Your task to perform on an android device: open wifi settings Image 0: 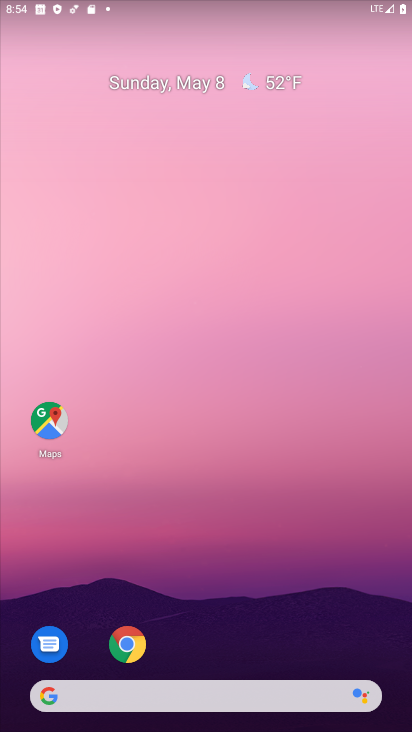
Step 0: drag from (212, 638) to (251, 239)
Your task to perform on an android device: open wifi settings Image 1: 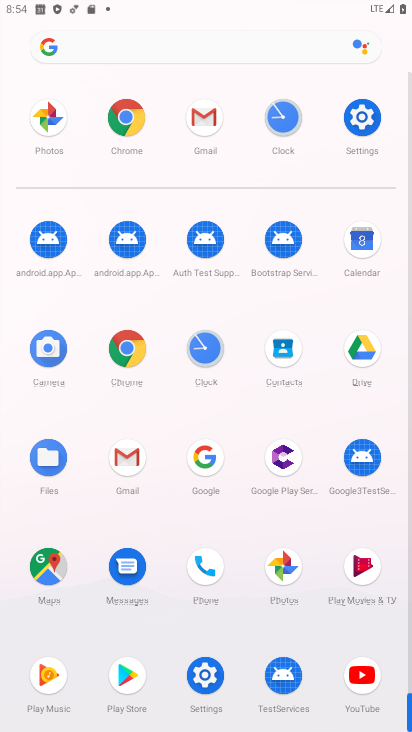
Step 1: click (202, 673)
Your task to perform on an android device: open wifi settings Image 2: 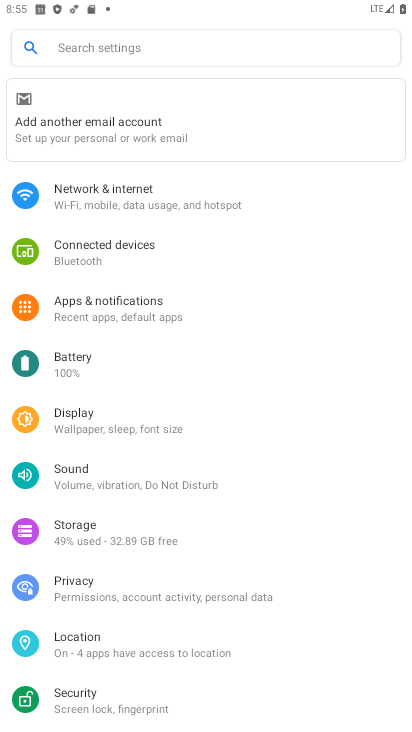
Step 2: click (145, 203)
Your task to perform on an android device: open wifi settings Image 3: 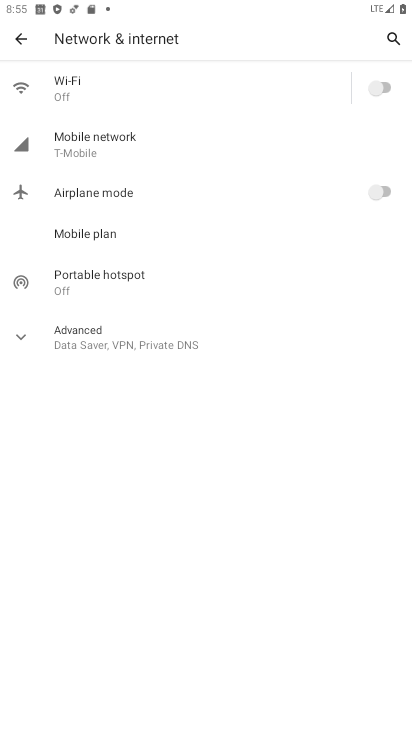
Step 3: click (209, 99)
Your task to perform on an android device: open wifi settings Image 4: 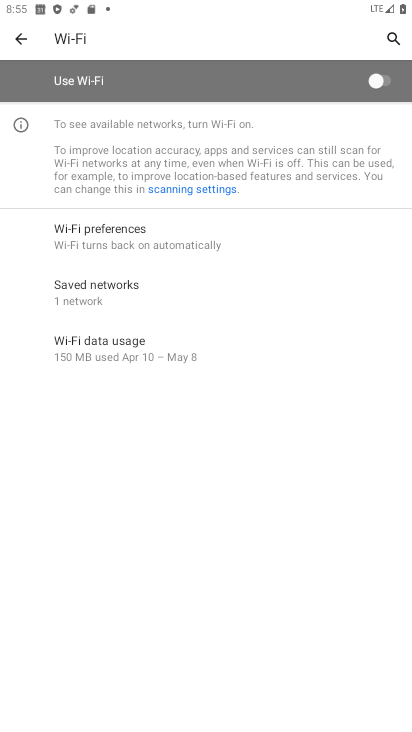
Step 4: task complete